Your task to perform on an android device: turn off translation in the chrome app Image 0: 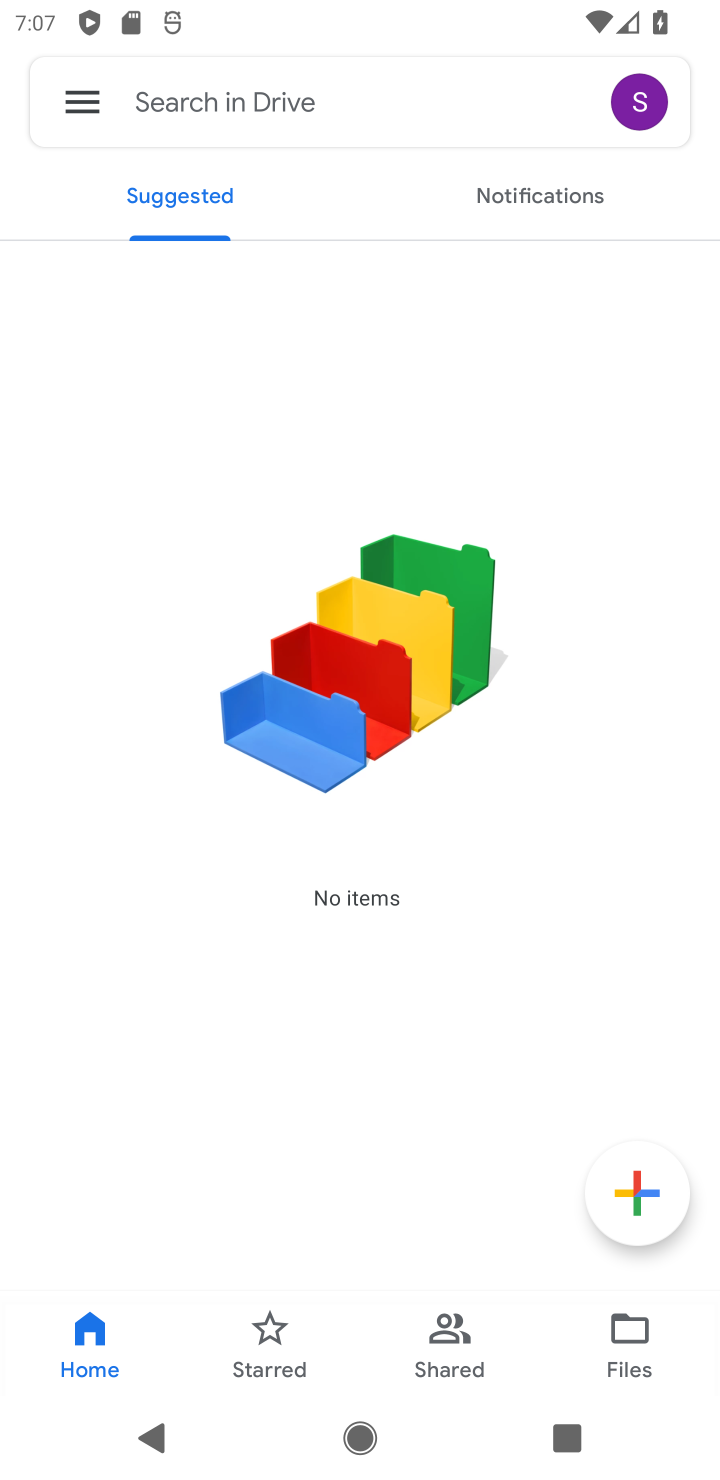
Step 0: press home button
Your task to perform on an android device: turn off translation in the chrome app Image 1: 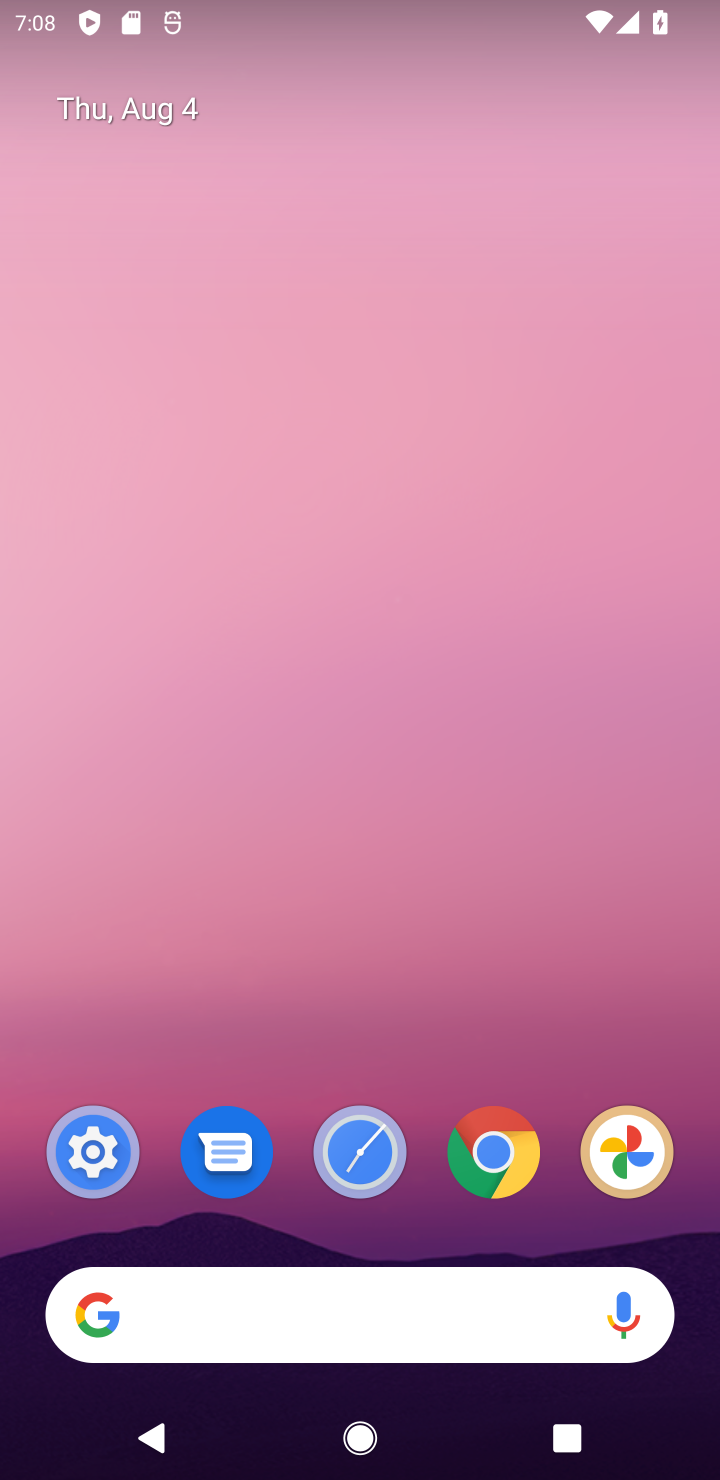
Step 1: click (486, 1160)
Your task to perform on an android device: turn off translation in the chrome app Image 2: 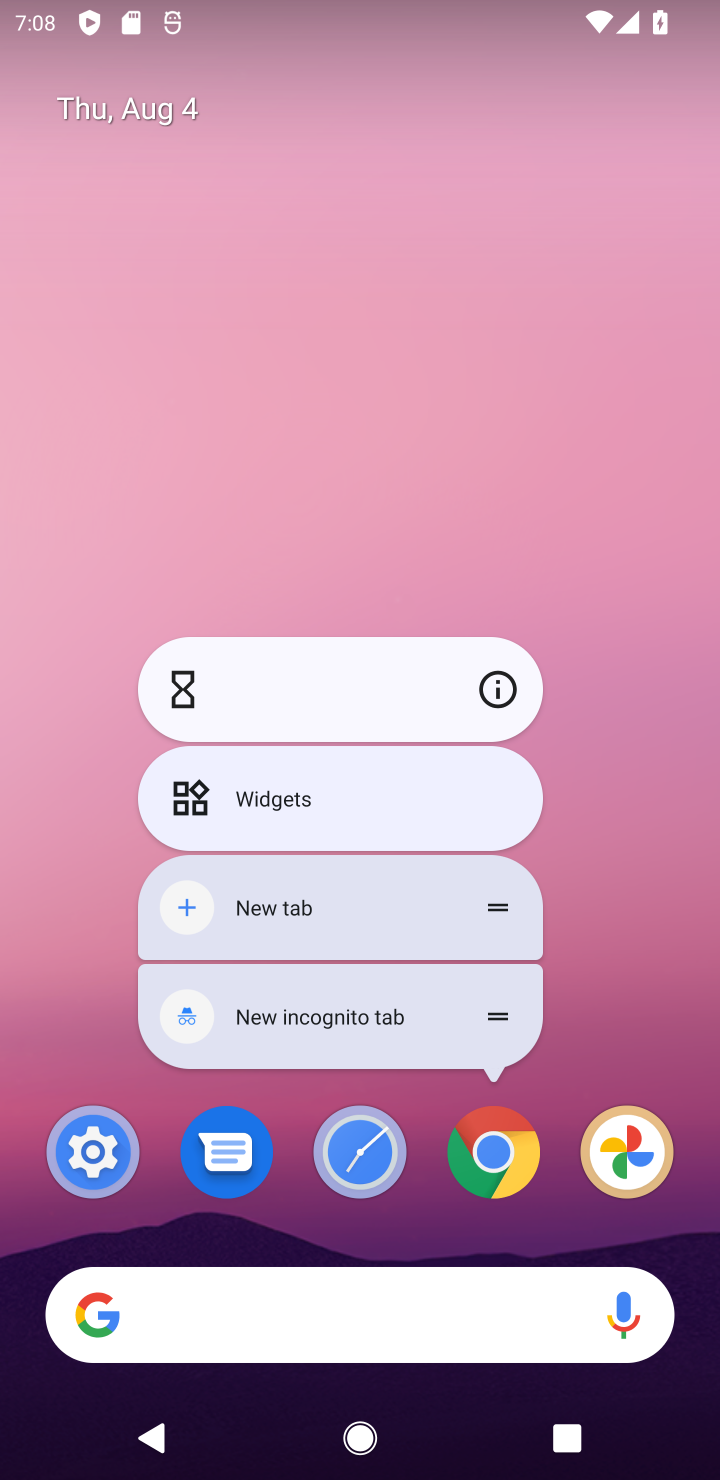
Step 2: click (486, 1160)
Your task to perform on an android device: turn off translation in the chrome app Image 3: 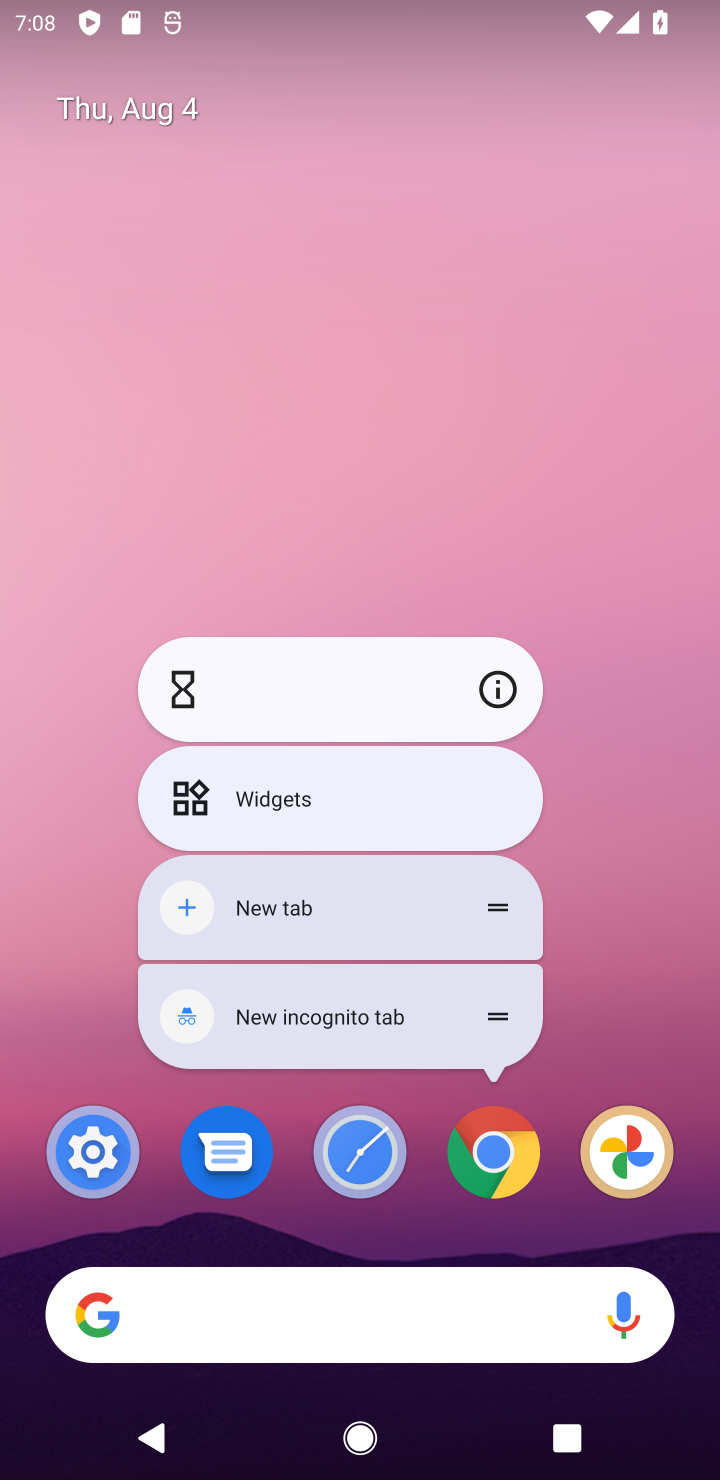
Step 3: click (495, 1148)
Your task to perform on an android device: turn off translation in the chrome app Image 4: 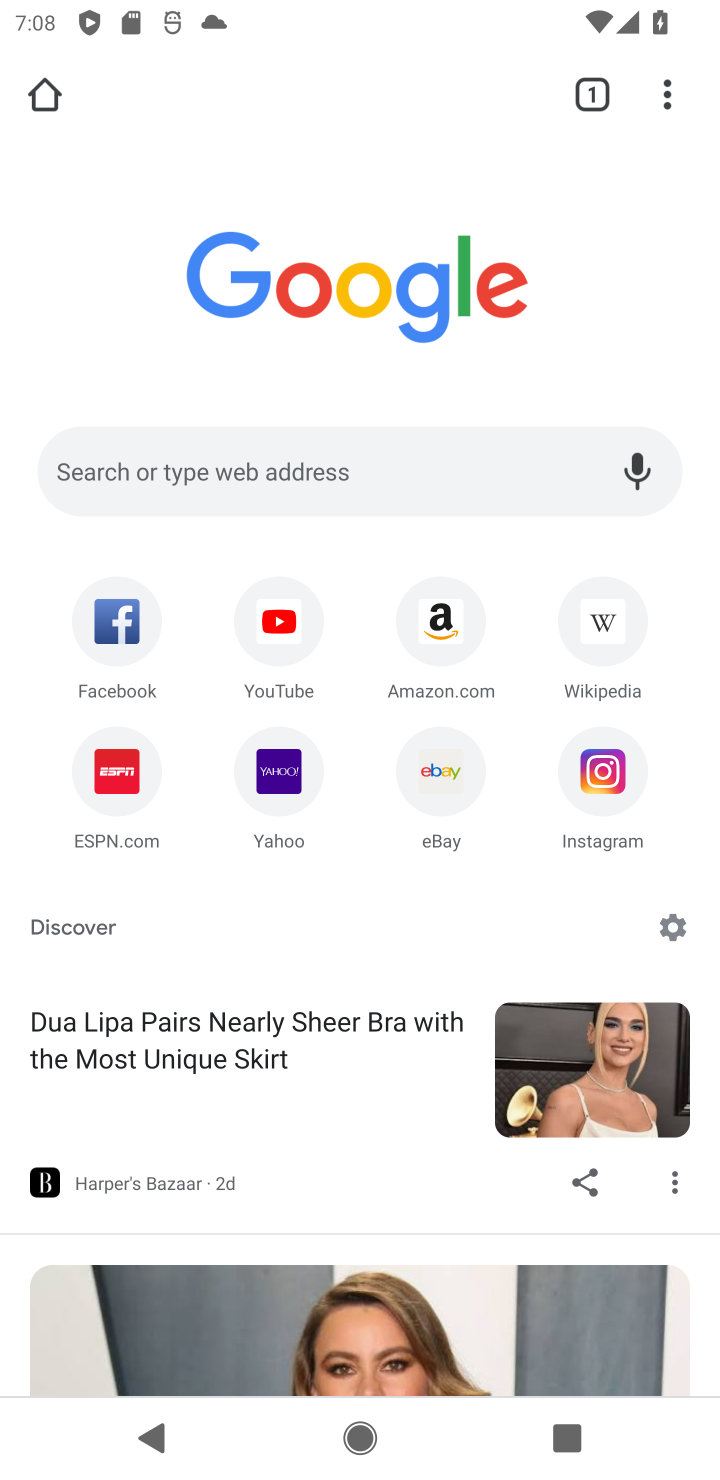
Step 4: task complete